Your task to perform on an android device: snooze an email in the gmail app Image 0: 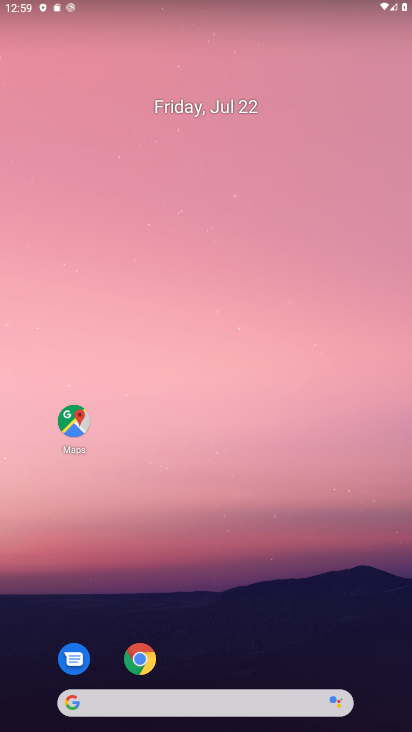
Step 0: task complete